Your task to perform on an android device: Go to notification settings Image 0: 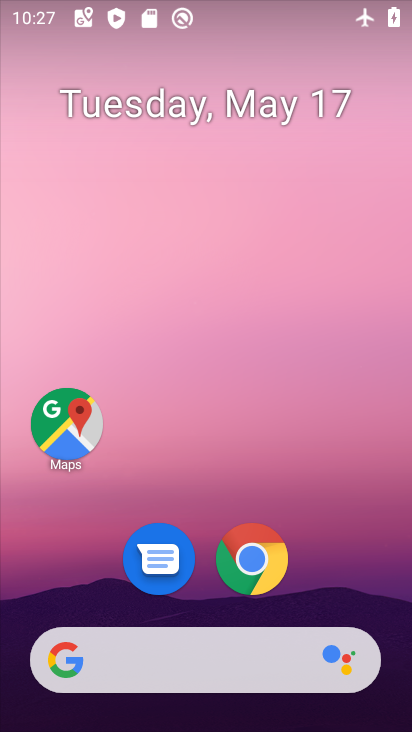
Step 0: drag from (221, 671) to (254, 150)
Your task to perform on an android device: Go to notification settings Image 1: 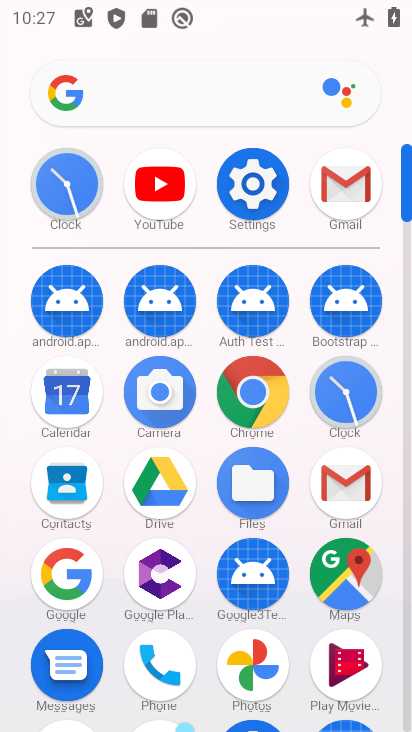
Step 1: click (250, 184)
Your task to perform on an android device: Go to notification settings Image 2: 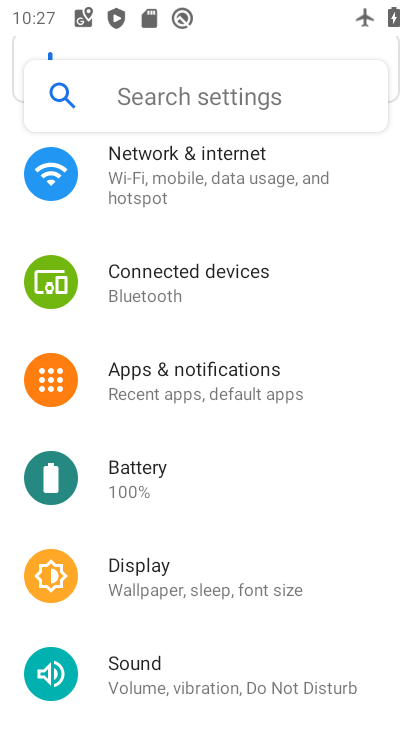
Step 2: click (255, 370)
Your task to perform on an android device: Go to notification settings Image 3: 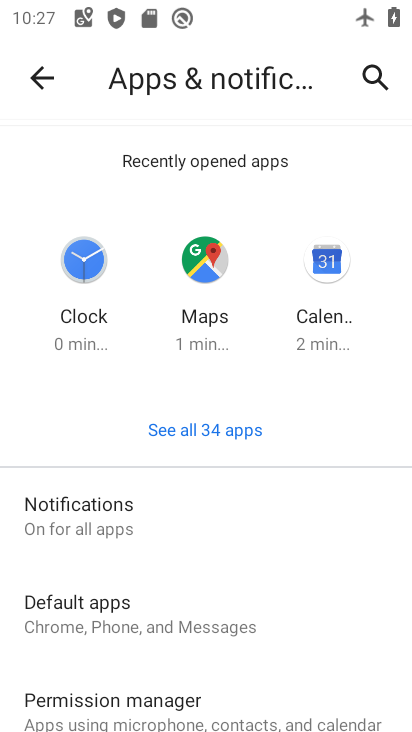
Step 3: task complete